Your task to perform on an android device: Open accessibility settings Image 0: 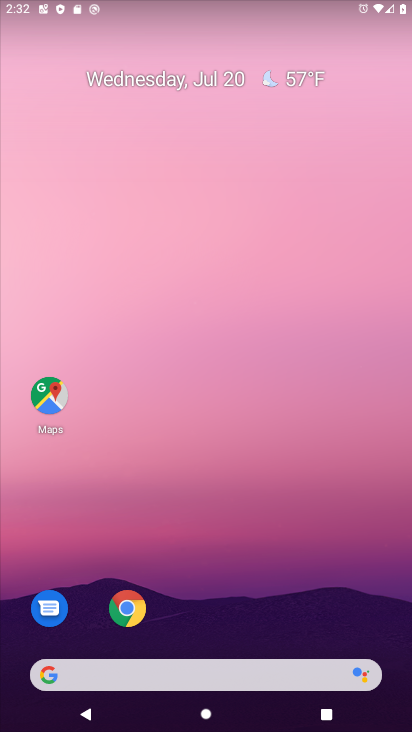
Step 0: press home button
Your task to perform on an android device: Open accessibility settings Image 1: 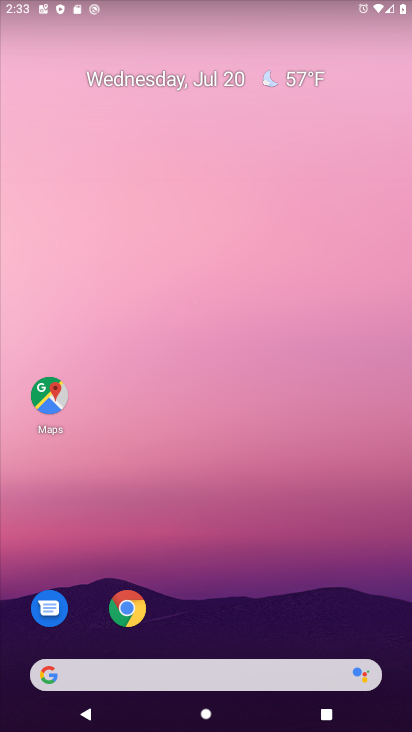
Step 1: drag from (213, 631) to (231, 163)
Your task to perform on an android device: Open accessibility settings Image 2: 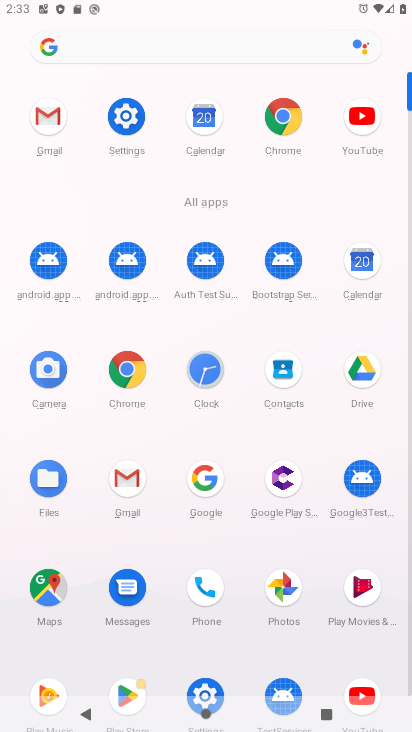
Step 2: click (121, 110)
Your task to perform on an android device: Open accessibility settings Image 3: 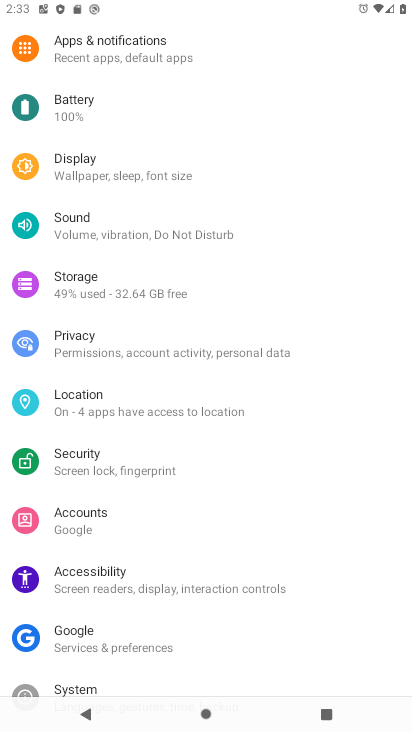
Step 3: click (102, 569)
Your task to perform on an android device: Open accessibility settings Image 4: 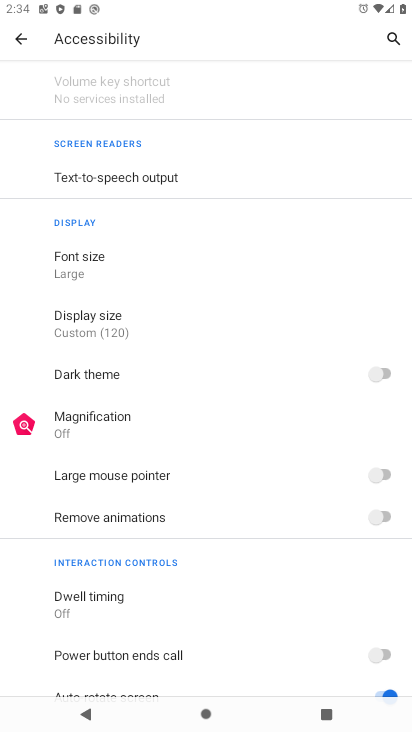
Step 4: task complete